Your task to perform on an android device: What's the weather today? Image 0: 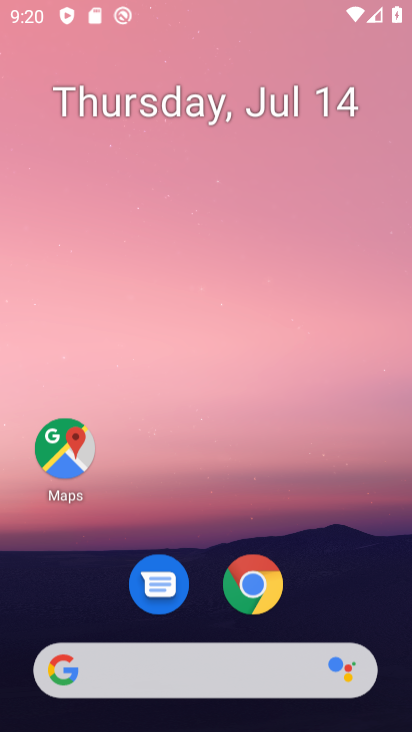
Step 0: click (130, 1)
Your task to perform on an android device: What's the weather today? Image 1: 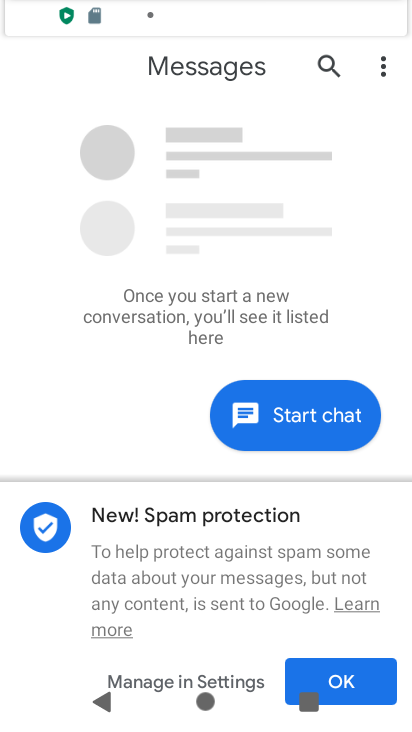
Step 1: press home button
Your task to perform on an android device: What's the weather today? Image 2: 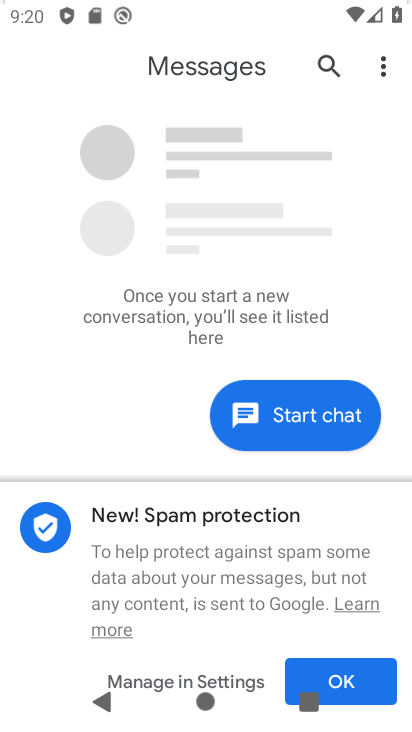
Step 2: drag from (130, 1) to (363, 531)
Your task to perform on an android device: What's the weather today? Image 3: 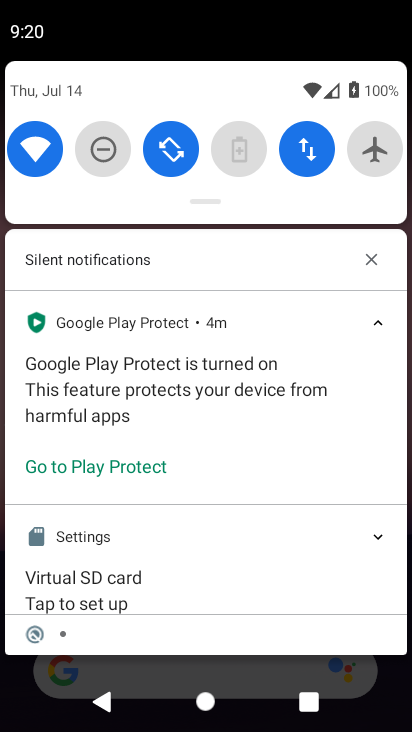
Step 3: press home button
Your task to perform on an android device: What's the weather today? Image 4: 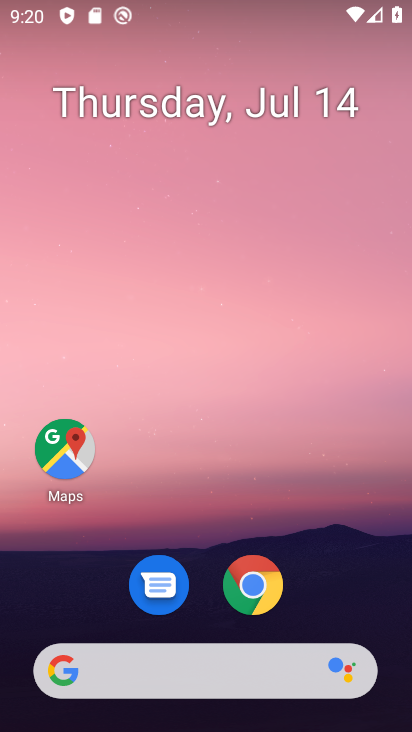
Step 4: drag from (217, 624) to (127, 24)
Your task to perform on an android device: What's the weather today? Image 5: 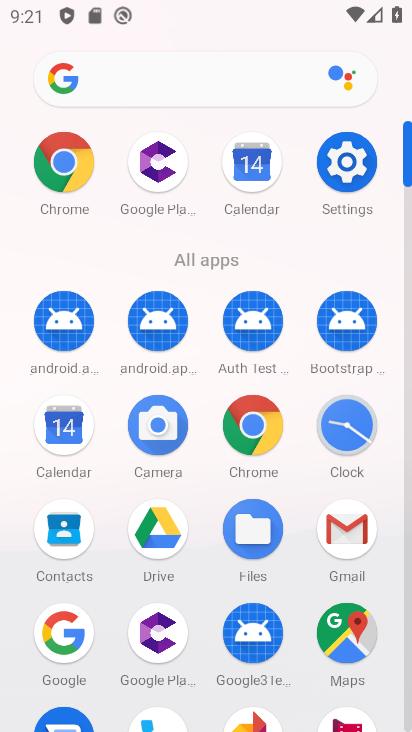
Step 5: click (71, 639)
Your task to perform on an android device: What's the weather today? Image 6: 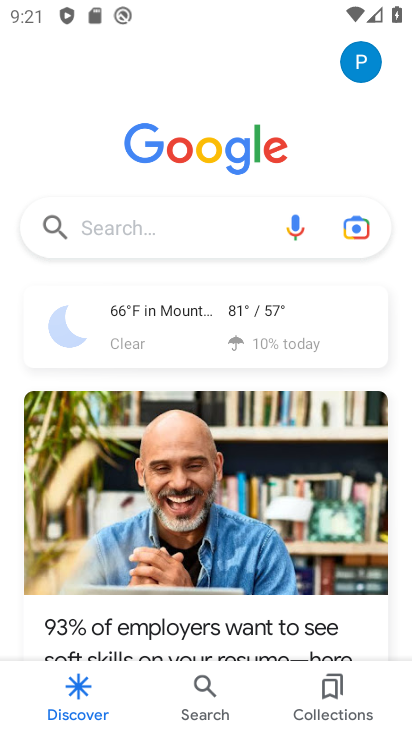
Step 6: click (123, 243)
Your task to perform on an android device: What's the weather today? Image 7: 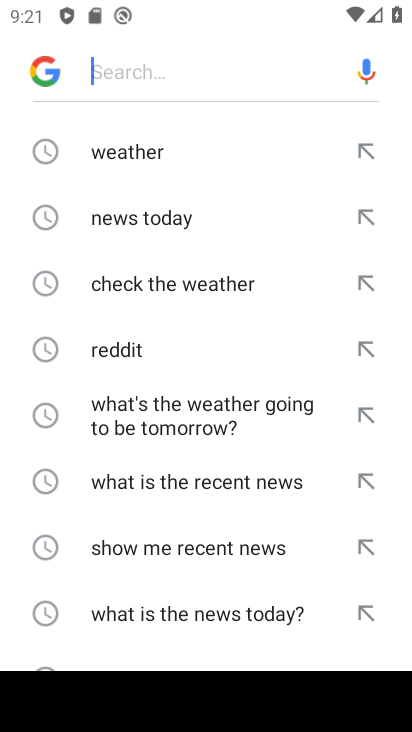
Step 7: click (129, 141)
Your task to perform on an android device: What's the weather today? Image 8: 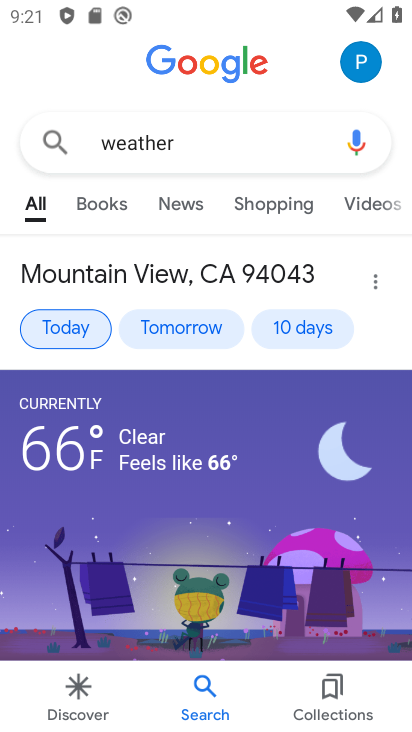
Step 8: click (51, 336)
Your task to perform on an android device: What's the weather today? Image 9: 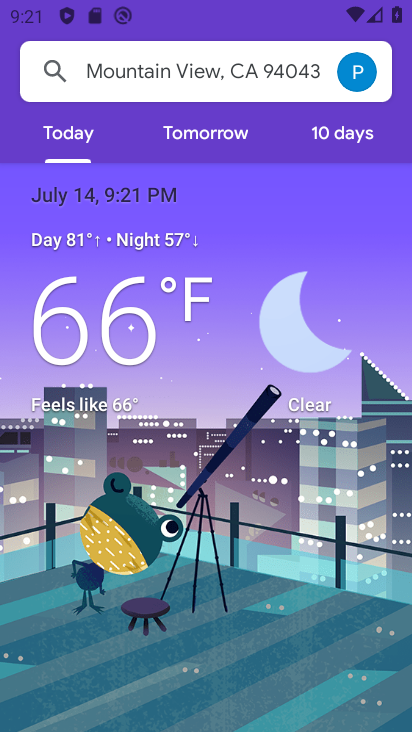
Step 9: task complete